Your task to perform on an android device: check storage Image 0: 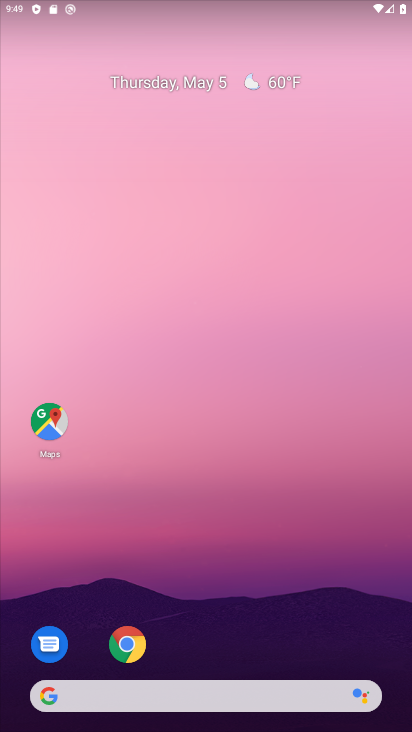
Step 0: drag from (375, 650) to (380, 183)
Your task to perform on an android device: check storage Image 1: 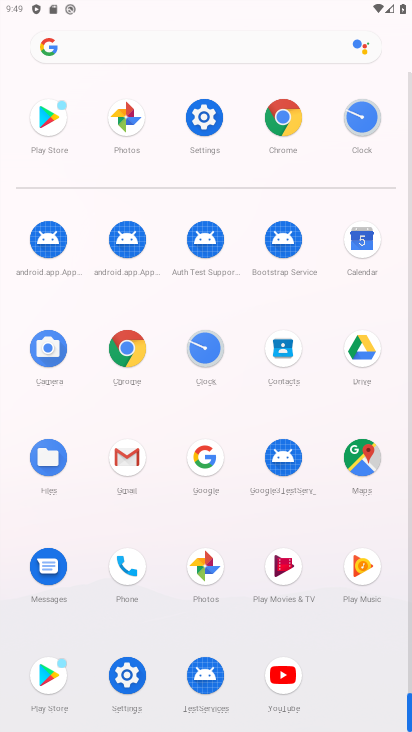
Step 1: click (208, 124)
Your task to perform on an android device: check storage Image 2: 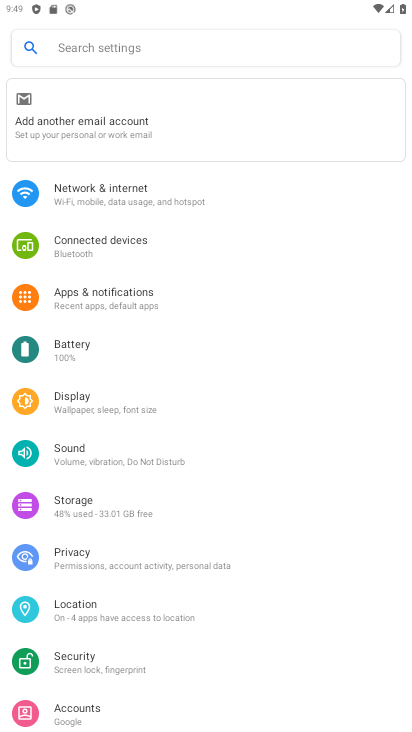
Step 2: click (62, 516)
Your task to perform on an android device: check storage Image 3: 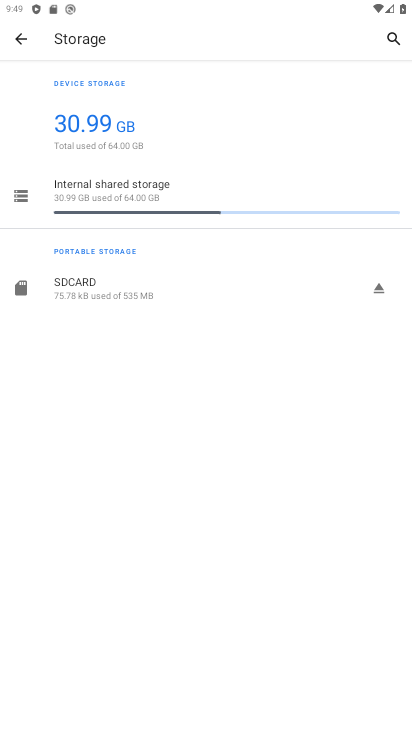
Step 3: click (19, 183)
Your task to perform on an android device: check storage Image 4: 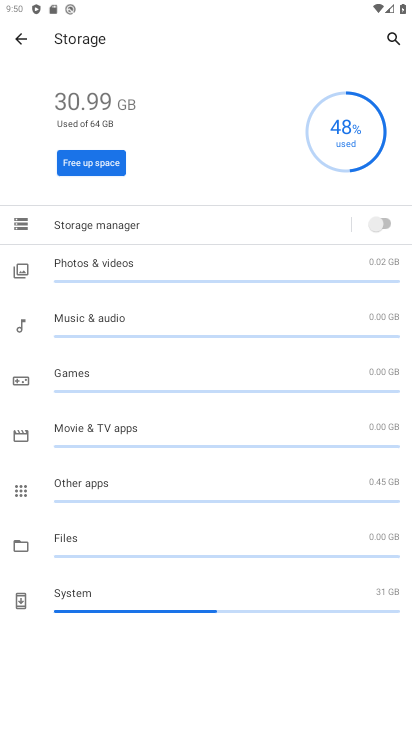
Step 4: task complete